Your task to perform on an android device: visit the assistant section in the google photos Image 0: 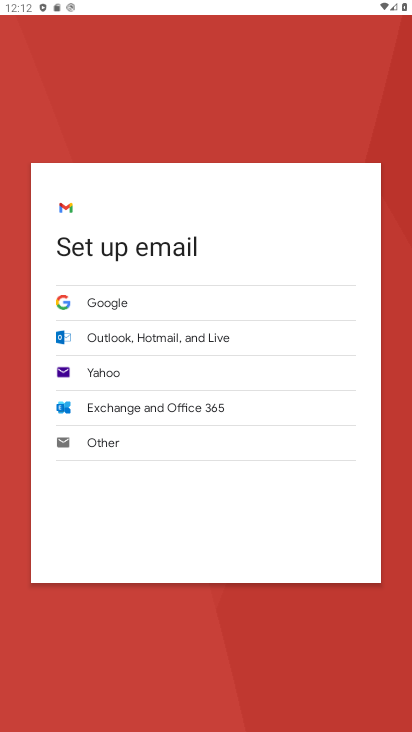
Step 0: task complete